Your task to perform on an android device: Open Google Image 0: 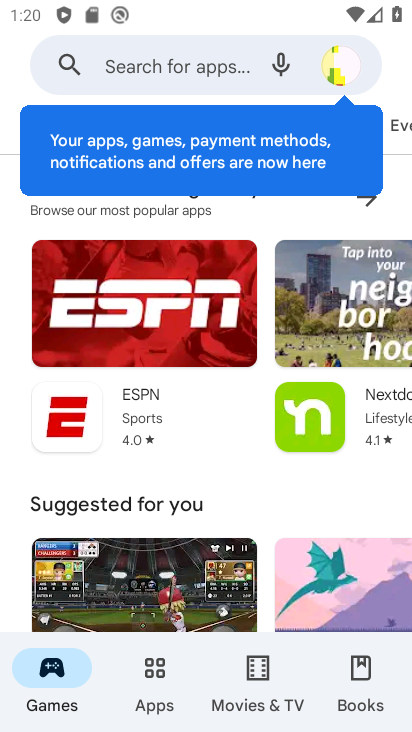
Step 0: press home button
Your task to perform on an android device: Open Google Image 1: 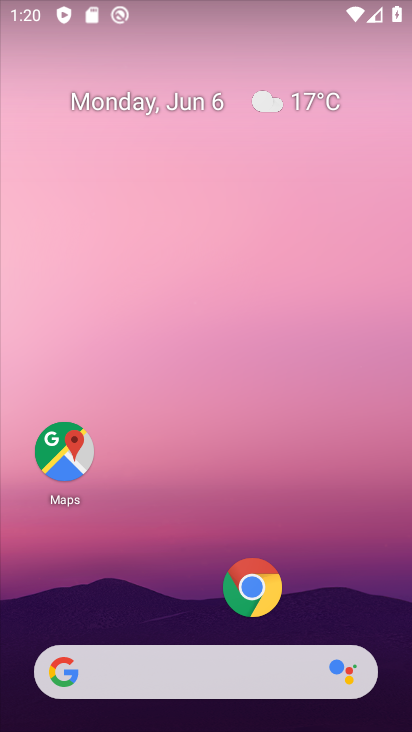
Step 1: click (140, 673)
Your task to perform on an android device: Open Google Image 2: 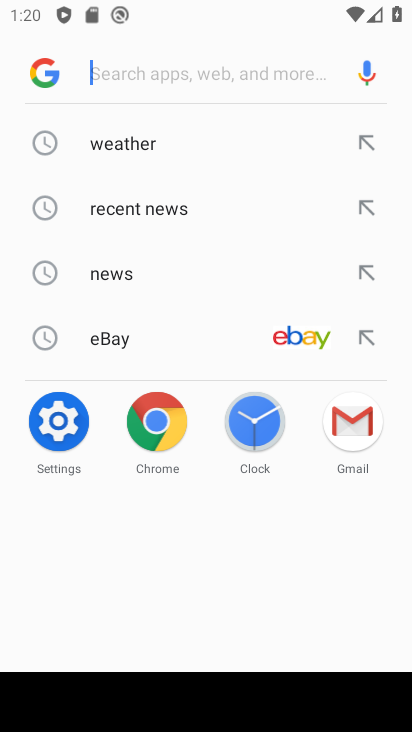
Step 2: click (40, 70)
Your task to perform on an android device: Open Google Image 3: 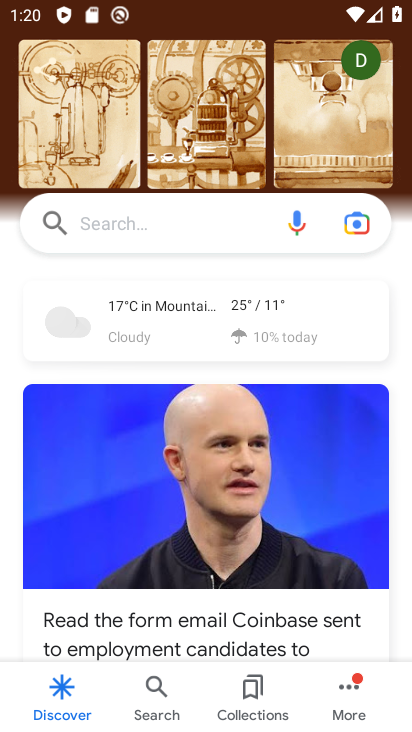
Step 3: task complete